Your task to perform on an android device: Open ESPN.com Image 0: 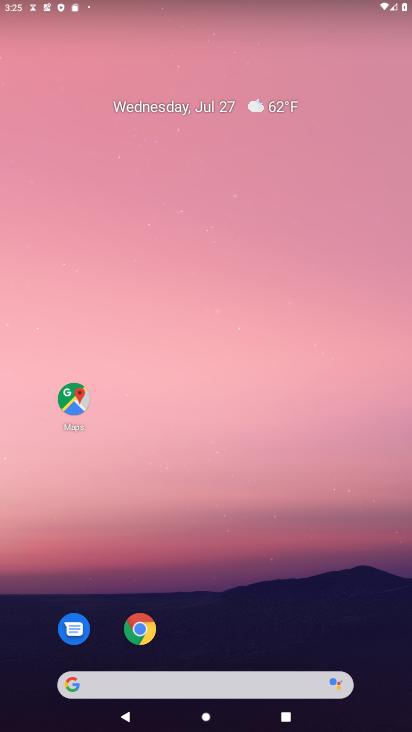
Step 0: click (142, 628)
Your task to perform on an android device: Open ESPN.com Image 1: 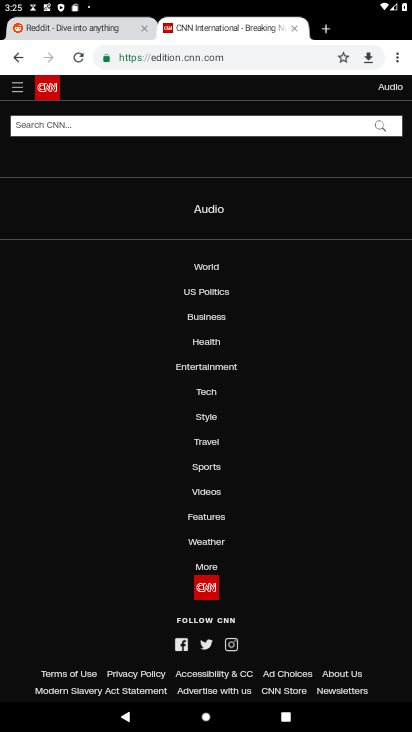
Step 1: click (251, 60)
Your task to perform on an android device: Open ESPN.com Image 2: 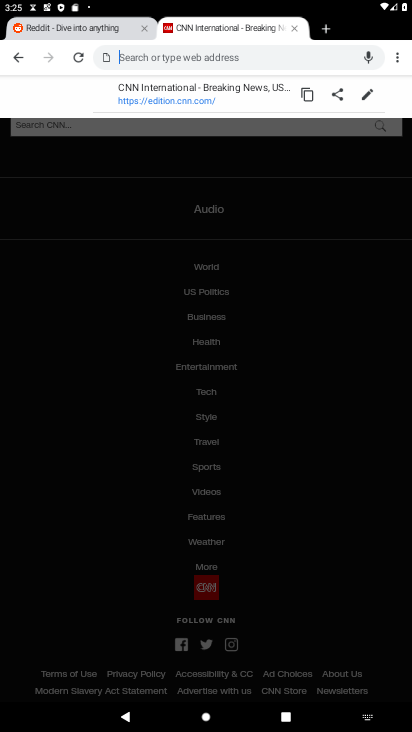
Step 2: type "ESPN.com"
Your task to perform on an android device: Open ESPN.com Image 3: 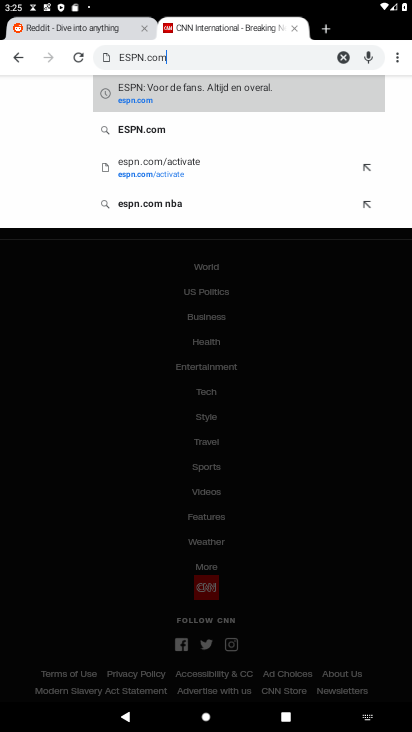
Step 3: click (157, 127)
Your task to perform on an android device: Open ESPN.com Image 4: 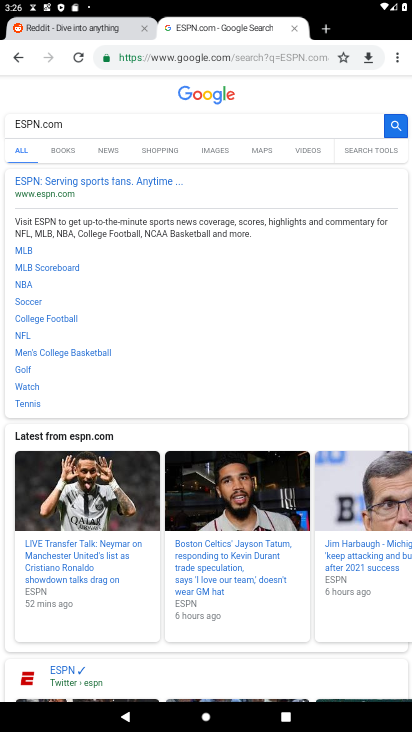
Step 4: click (66, 198)
Your task to perform on an android device: Open ESPN.com Image 5: 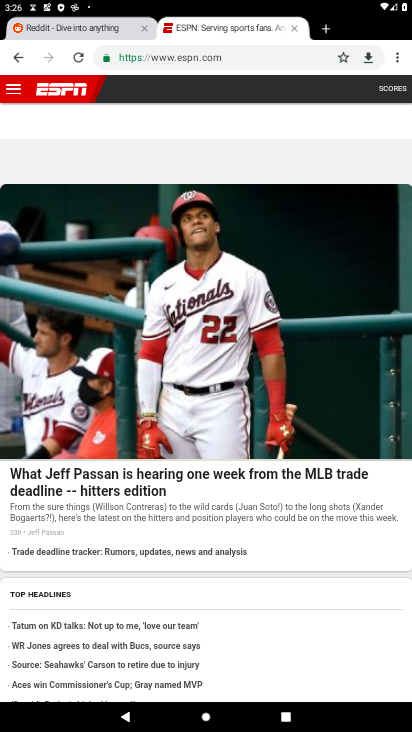
Step 5: task complete